Your task to perform on an android device: Open settings on Google Maps Image 0: 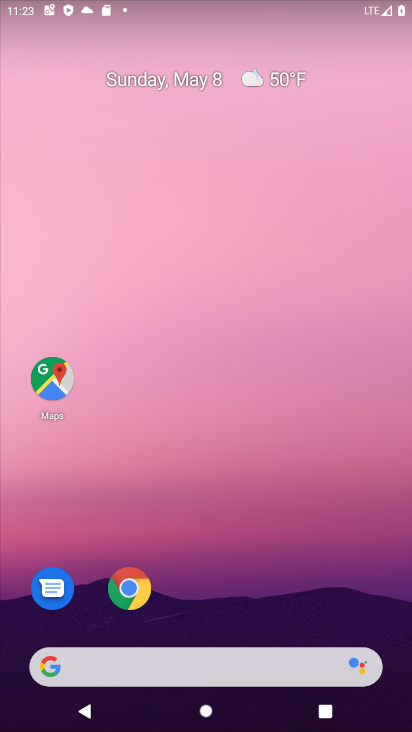
Step 0: click (56, 366)
Your task to perform on an android device: Open settings on Google Maps Image 1: 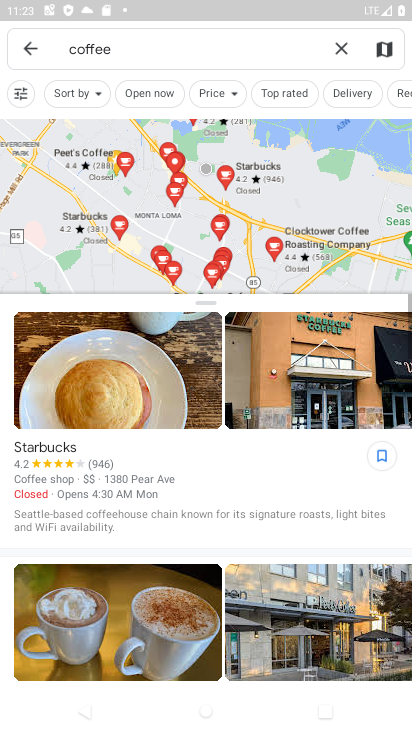
Step 1: click (338, 51)
Your task to perform on an android device: Open settings on Google Maps Image 2: 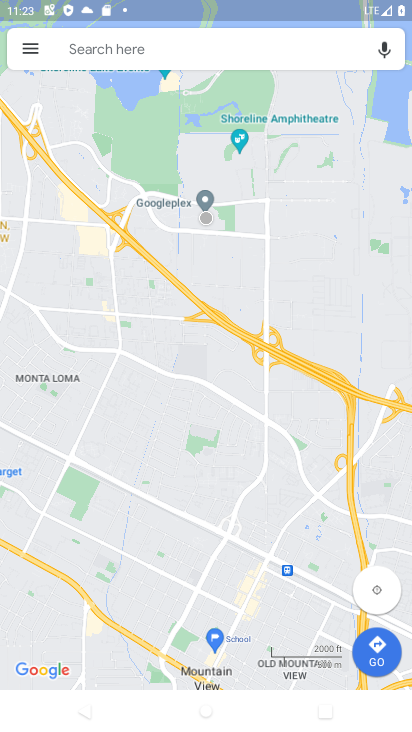
Step 2: click (31, 51)
Your task to perform on an android device: Open settings on Google Maps Image 3: 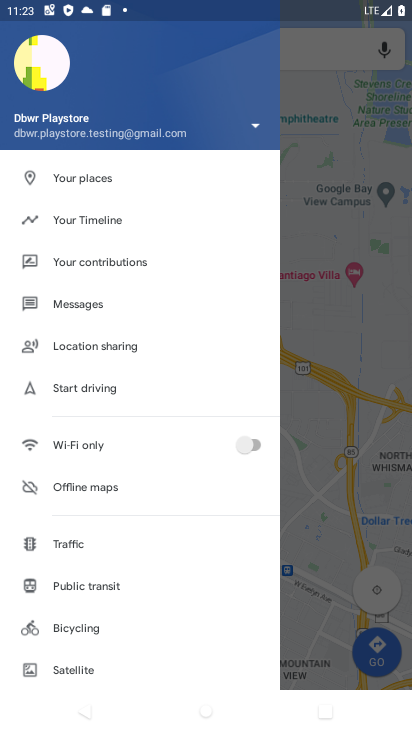
Step 3: drag from (154, 661) to (133, 213)
Your task to perform on an android device: Open settings on Google Maps Image 4: 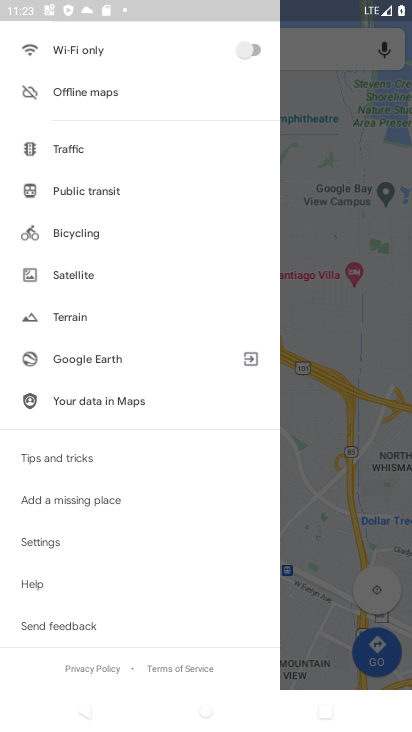
Step 4: click (88, 538)
Your task to perform on an android device: Open settings on Google Maps Image 5: 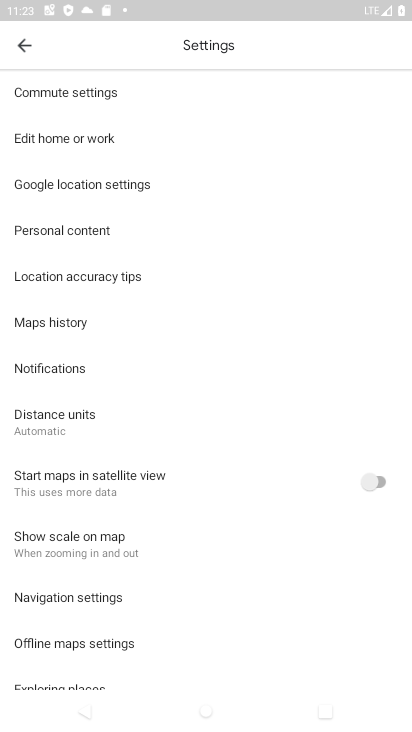
Step 5: task complete